Your task to perform on an android device: Open privacy settings Image 0: 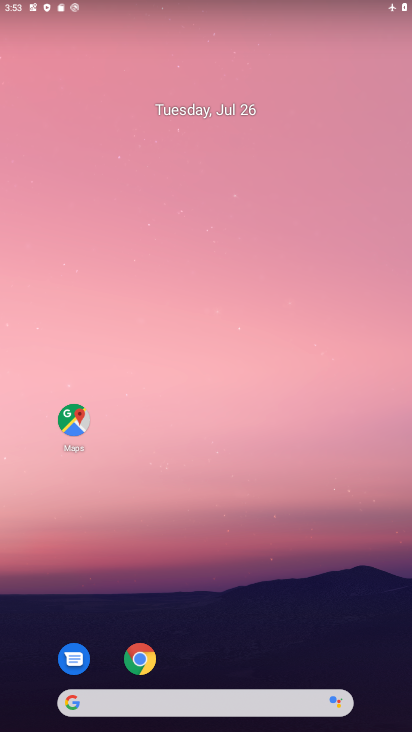
Step 0: drag from (249, 631) to (280, 3)
Your task to perform on an android device: Open privacy settings Image 1: 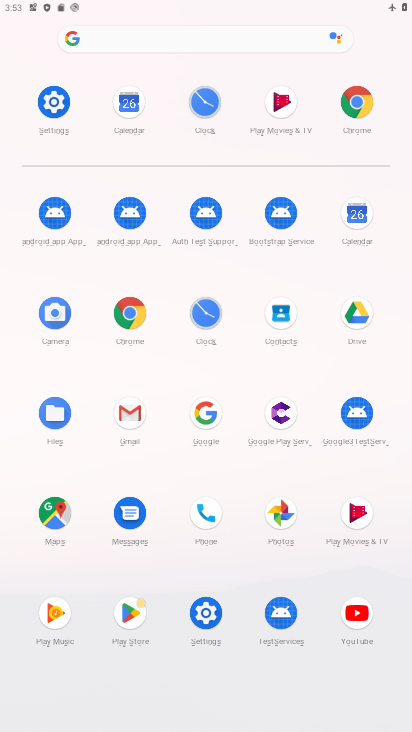
Step 1: click (57, 104)
Your task to perform on an android device: Open privacy settings Image 2: 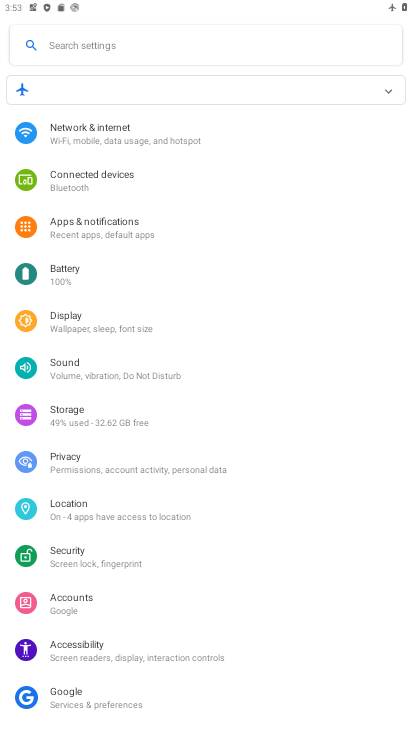
Step 2: click (84, 460)
Your task to perform on an android device: Open privacy settings Image 3: 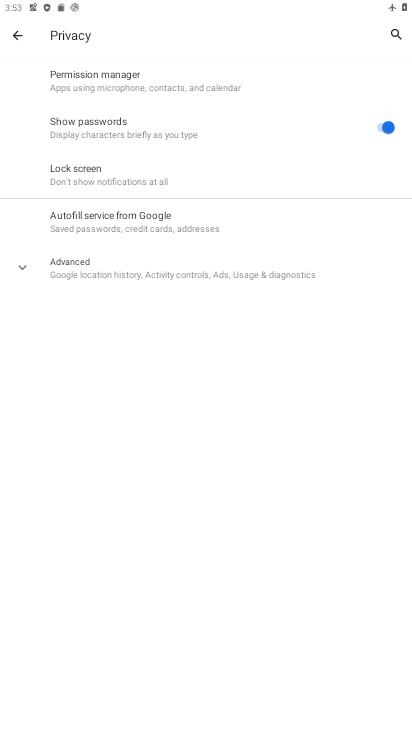
Step 3: task complete